Your task to perform on an android device: Go to Google maps Image 0: 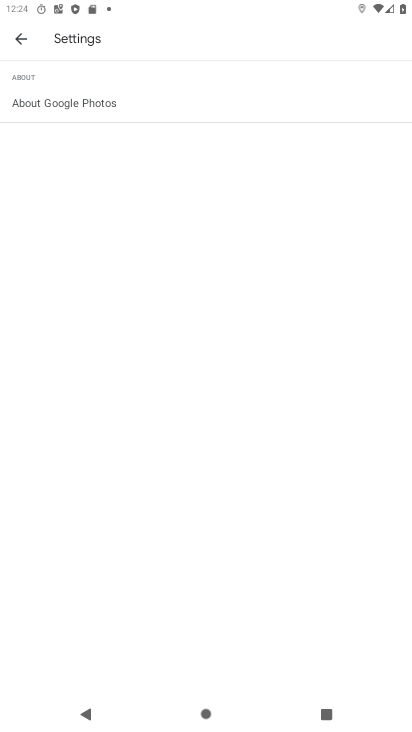
Step 0: press home button
Your task to perform on an android device: Go to Google maps Image 1: 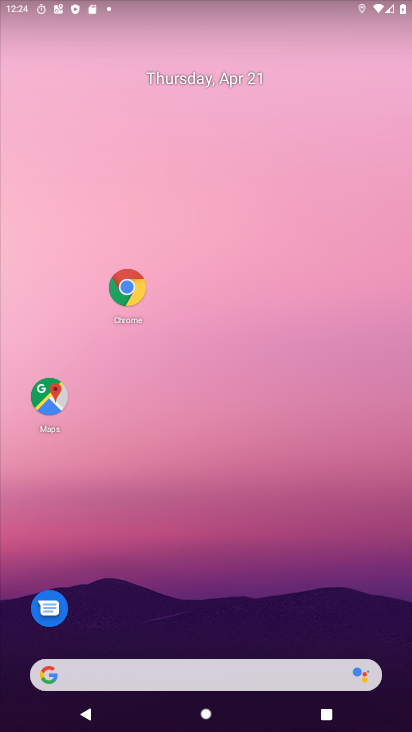
Step 1: click (45, 399)
Your task to perform on an android device: Go to Google maps Image 2: 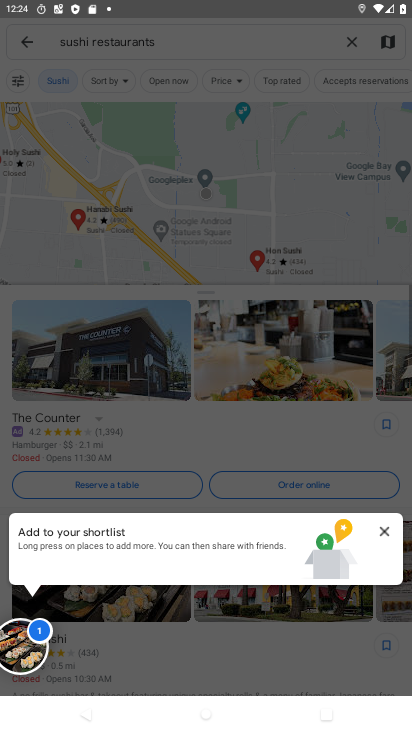
Step 2: click (212, 244)
Your task to perform on an android device: Go to Google maps Image 3: 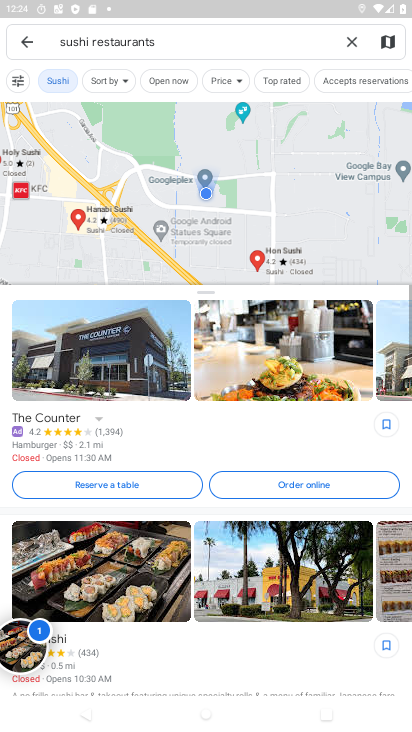
Step 3: task complete